Your task to perform on an android device: Open internet settings Image 0: 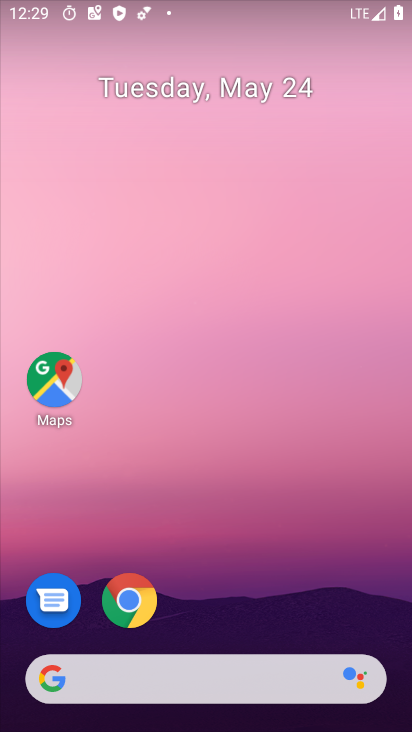
Step 0: drag from (261, 550) to (269, 48)
Your task to perform on an android device: Open internet settings Image 1: 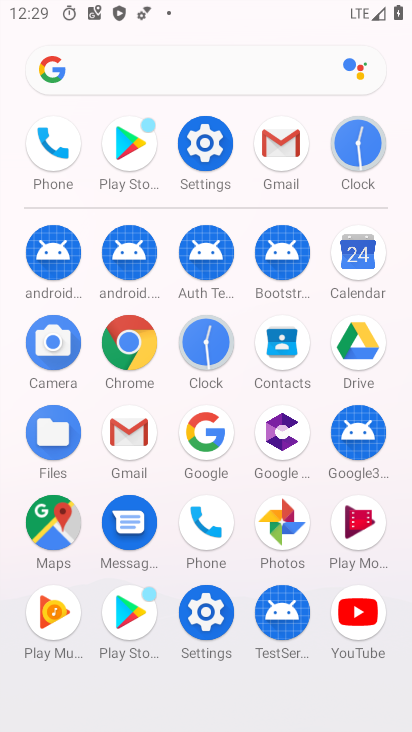
Step 1: click (212, 141)
Your task to perform on an android device: Open internet settings Image 2: 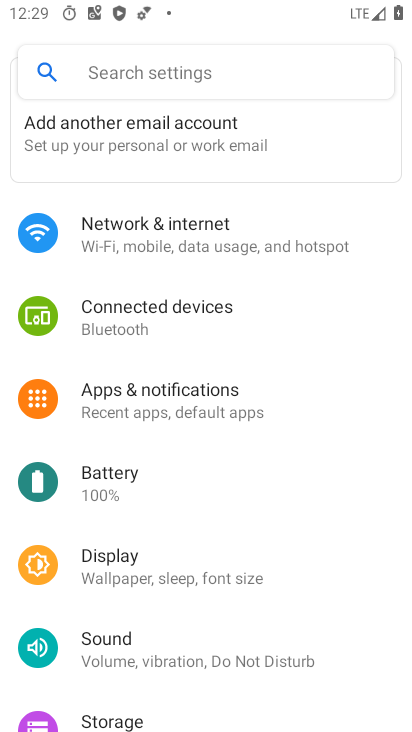
Step 2: click (235, 234)
Your task to perform on an android device: Open internet settings Image 3: 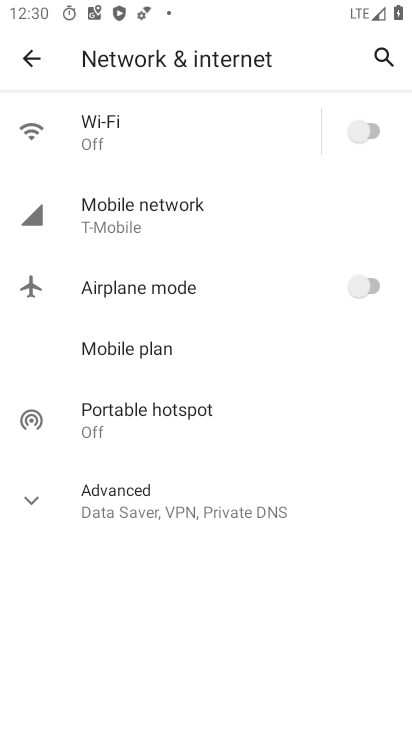
Step 3: task complete